Your task to perform on an android device: see creations saved in the google photos Image 0: 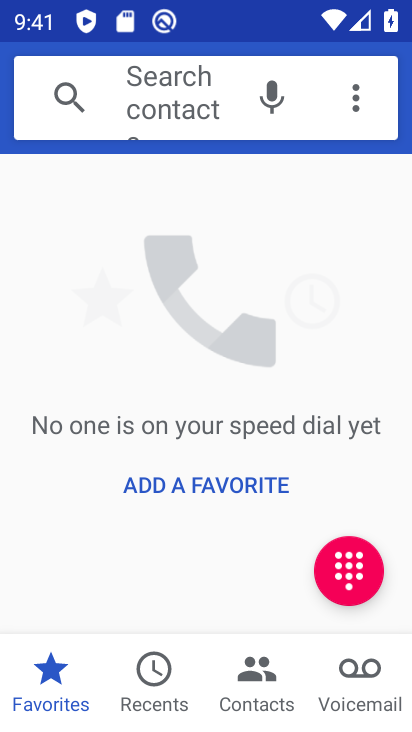
Step 0: press home button
Your task to perform on an android device: see creations saved in the google photos Image 1: 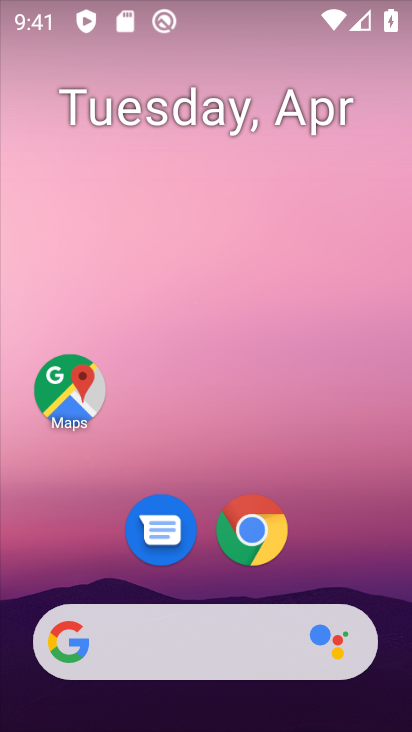
Step 1: drag from (332, 443) to (274, 147)
Your task to perform on an android device: see creations saved in the google photos Image 2: 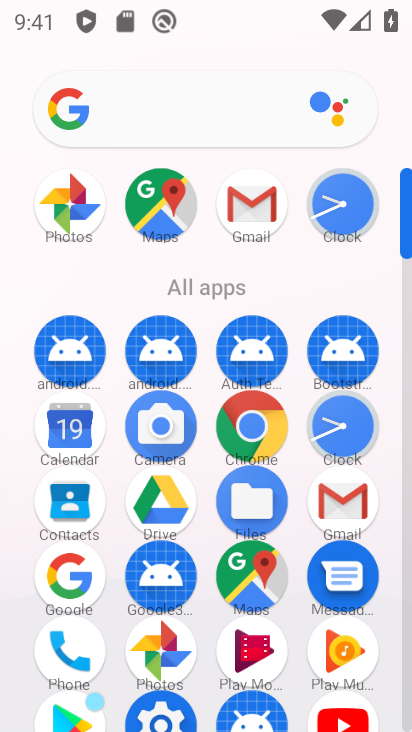
Step 2: click (144, 640)
Your task to perform on an android device: see creations saved in the google photos Image 3: 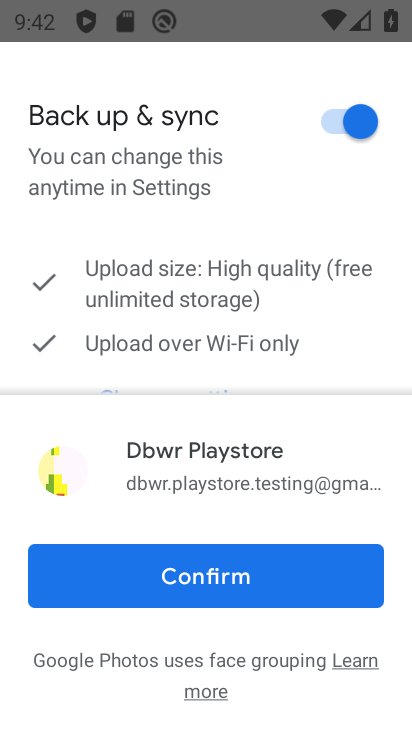
Step 3: click (199, 594)
Your task to perform on an android device: see creations saved in the google photos Image 4: 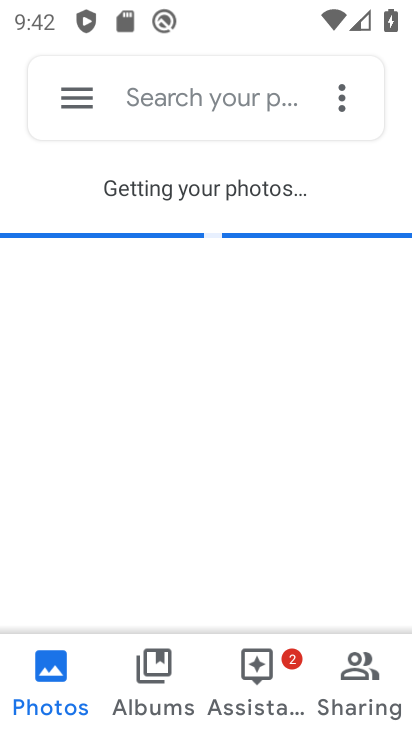
Step 4: click (175, 105)
Your task to perform on an android device: see creations saved in the google photos Image 5: 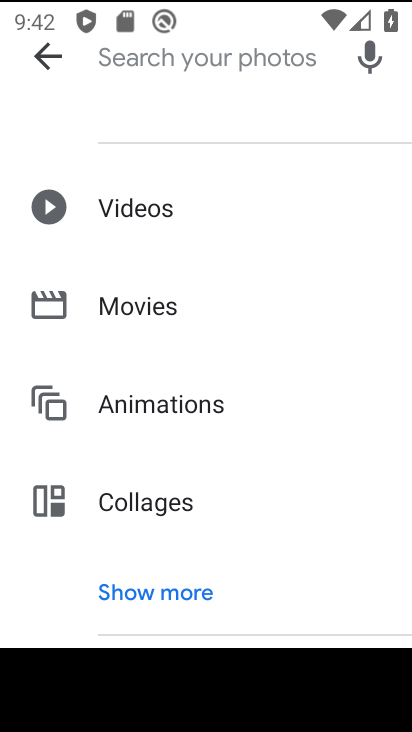
Step 5: click (137, 596)
Your task to perform on an android device: see creations saved in the google photos Image 6: 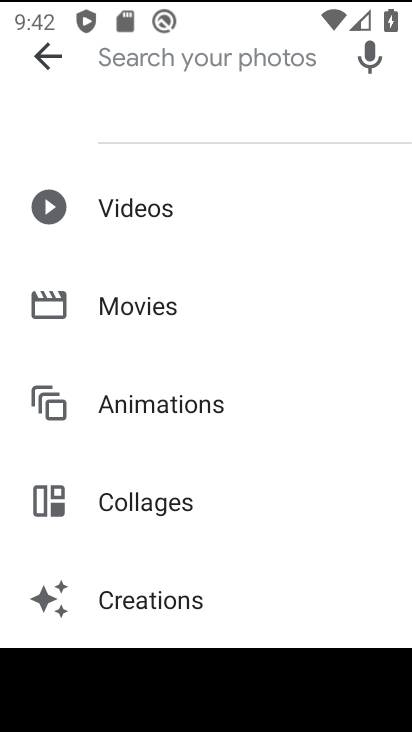
Step 6: click (126, 602)
Your task to perform on an android device: see creations saved in the google photos Image 7: 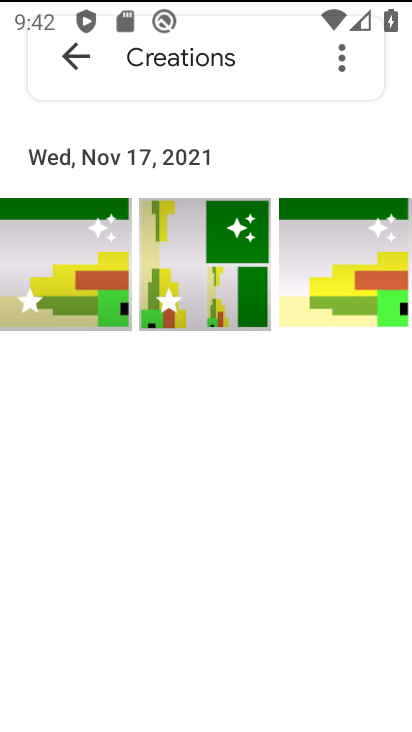
Step 7: task complete